Your task to perform on an android device: Is it going to rain tomorrow? Image 0: 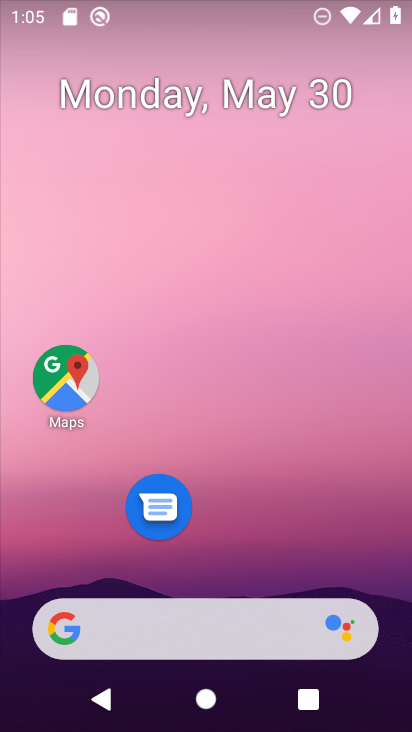
Step 0: drag from (262, 559) to (293, 143)
Your task to perform on an android device: Is it going to rain tomorrow? Image 1: 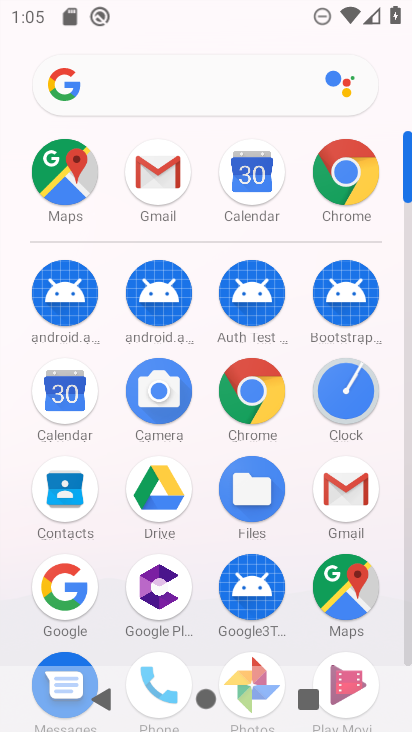
Step 1: click (254, 385)
Your task to perform on an android device: Is it going to rain tomorrow? Image 2: 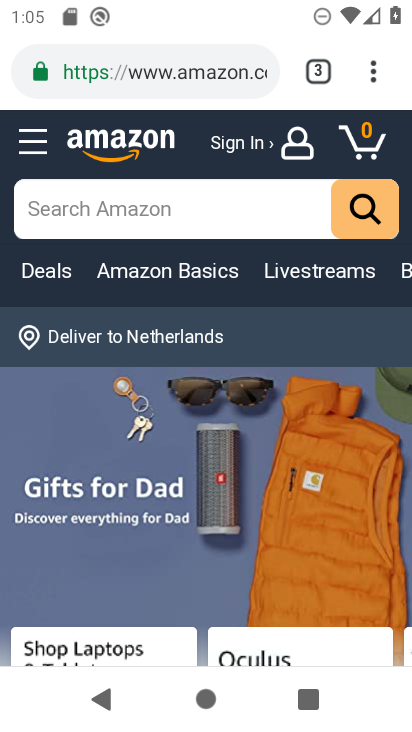
Step 2: click (167, 72)
Your task to perform on an android device: Is it going to rain tomorrow? Image 3: 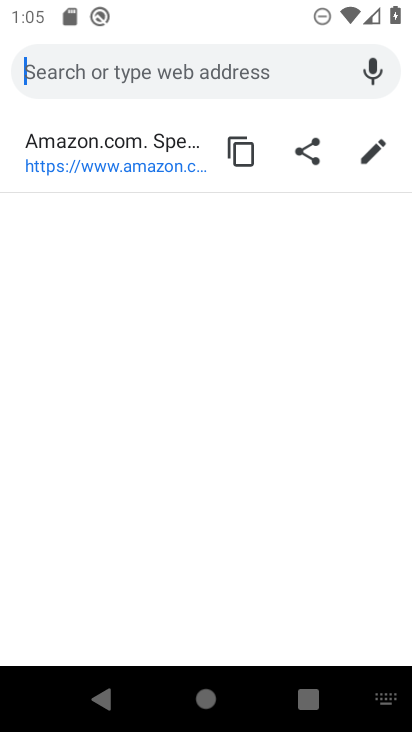
Step 3: type "Is it going to rain tomorrow?"
Your task to perform on an android device: Is it going to rain tomorrow? Image 4: 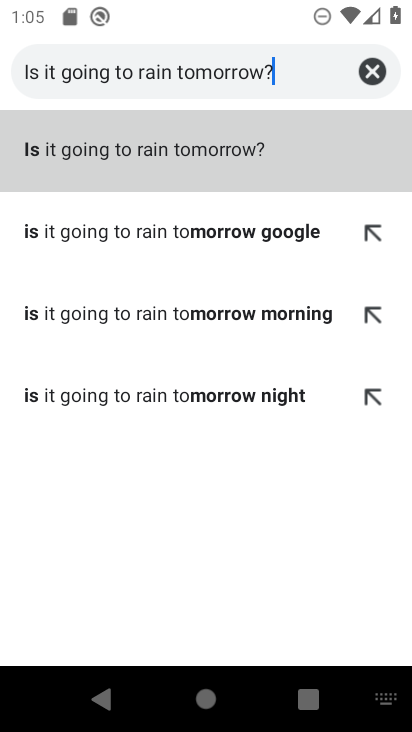
Step 4: click (185, 149)
Your task to perform on an android device: Is it going to rain tomorrow? Image 5: 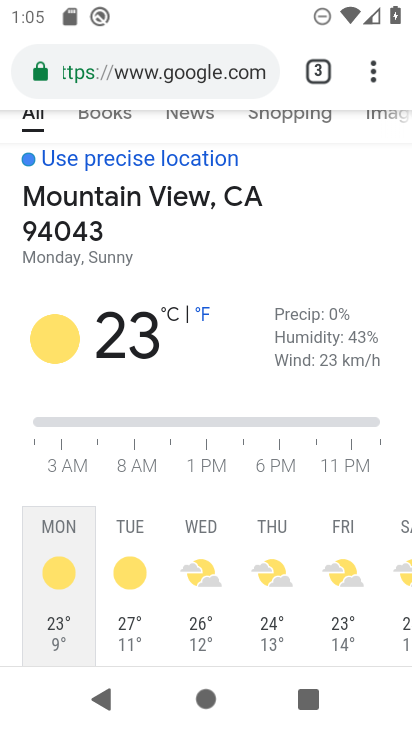
Step 5: task complete